Your task to perform on an android device: turn on sleep mode Image 0: 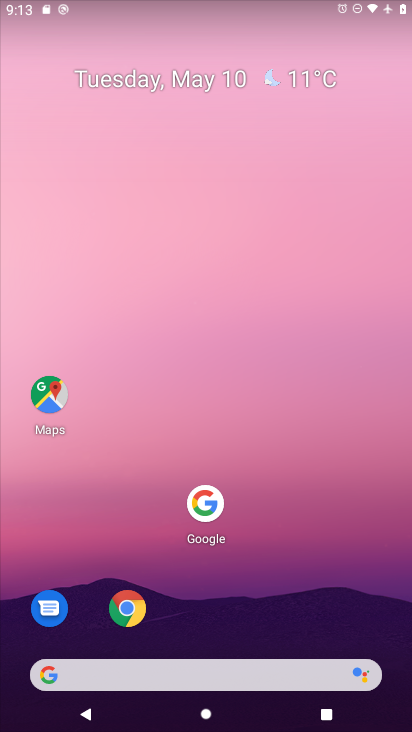
Step 0: drag from (241, 650) to (323, 164)
Your task to perform on an android device: turn on sleep mode Image 1: 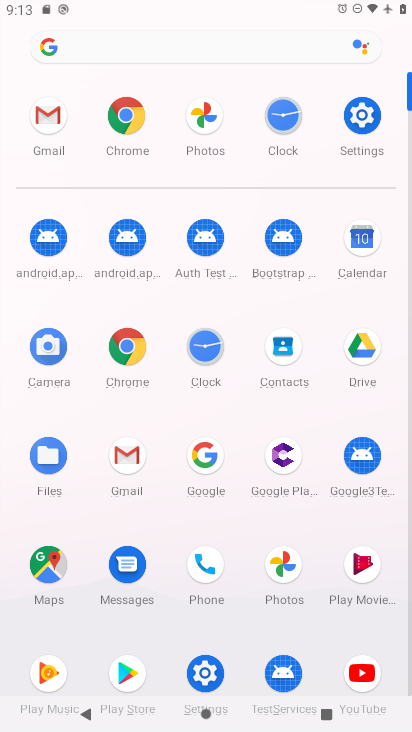
Step 1: click (351, 114)
Your task to perform on an android device: turn on sleep mode Image 2: 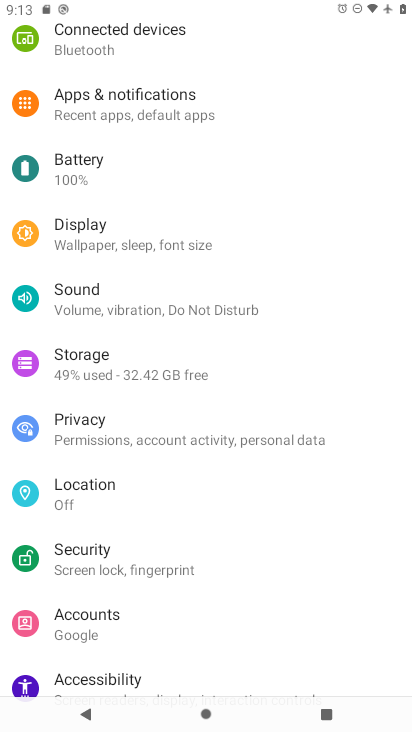
Step 2: click (110, 243)
Your task to perform on an android device: turn on sleep mode Image 3: 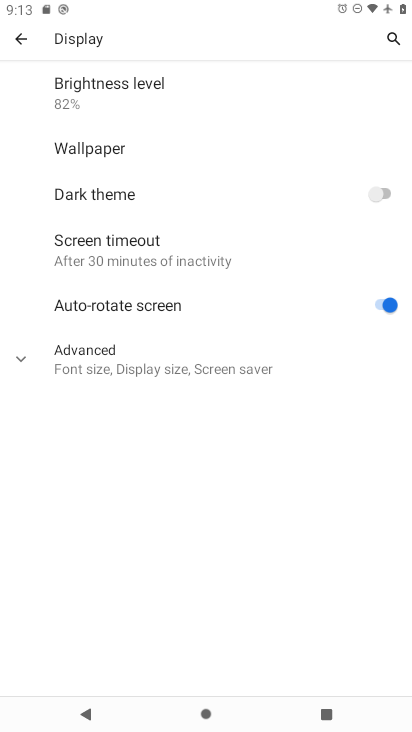
Step 3: task complete